Your task to perform on an android device: Toggle the flashlight Image 0: 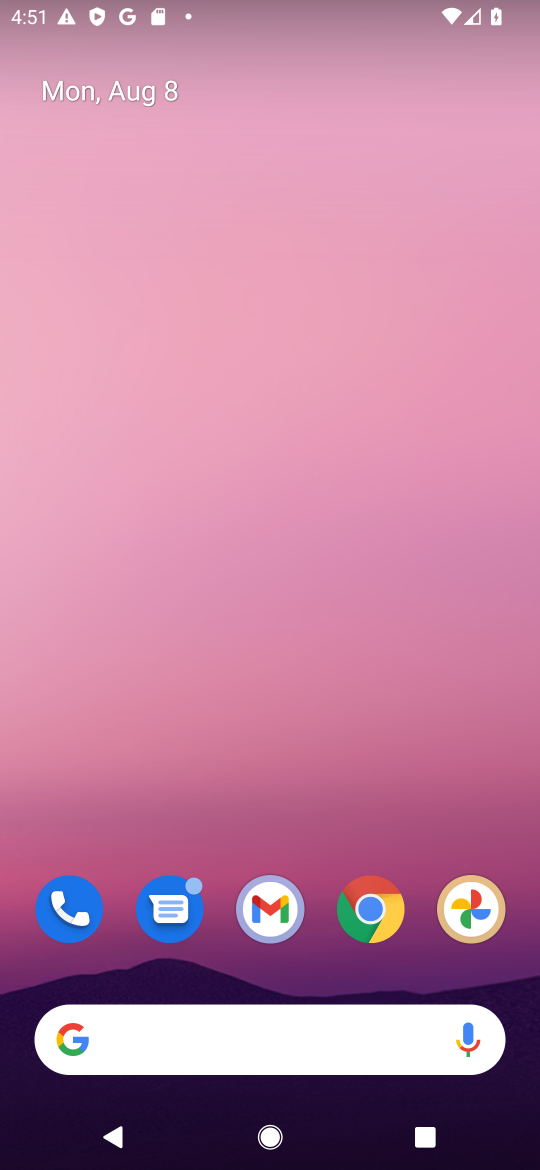
Step 0: press home button
Your task to perform on an android device: Toggle the flashlight Image 1: 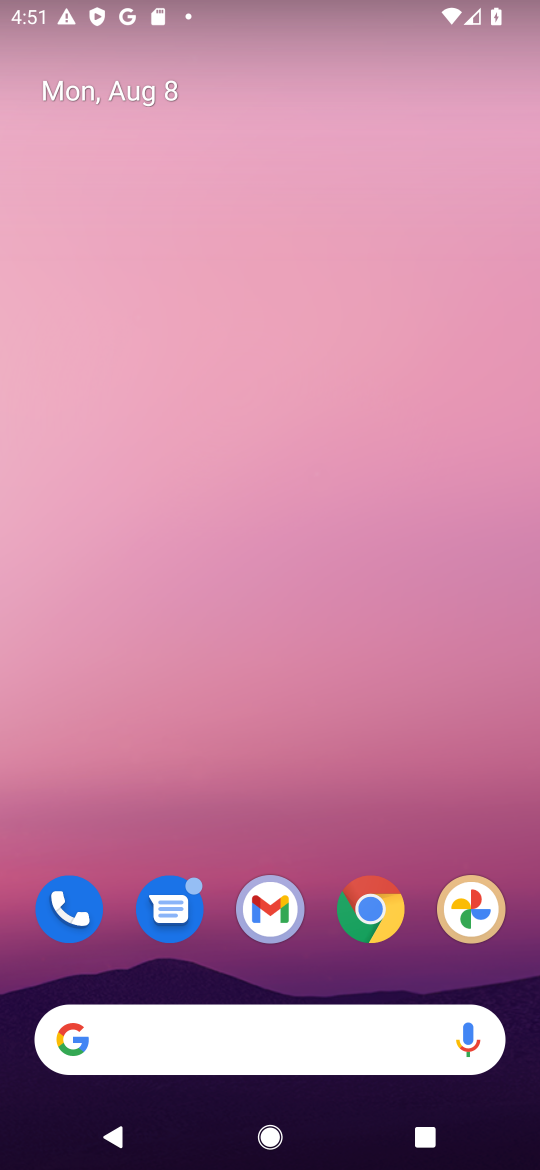
Step 1: drag from (289, 9) to (298, 573)
Your task to perform on an android device: Toggle the flashlight Image 2: 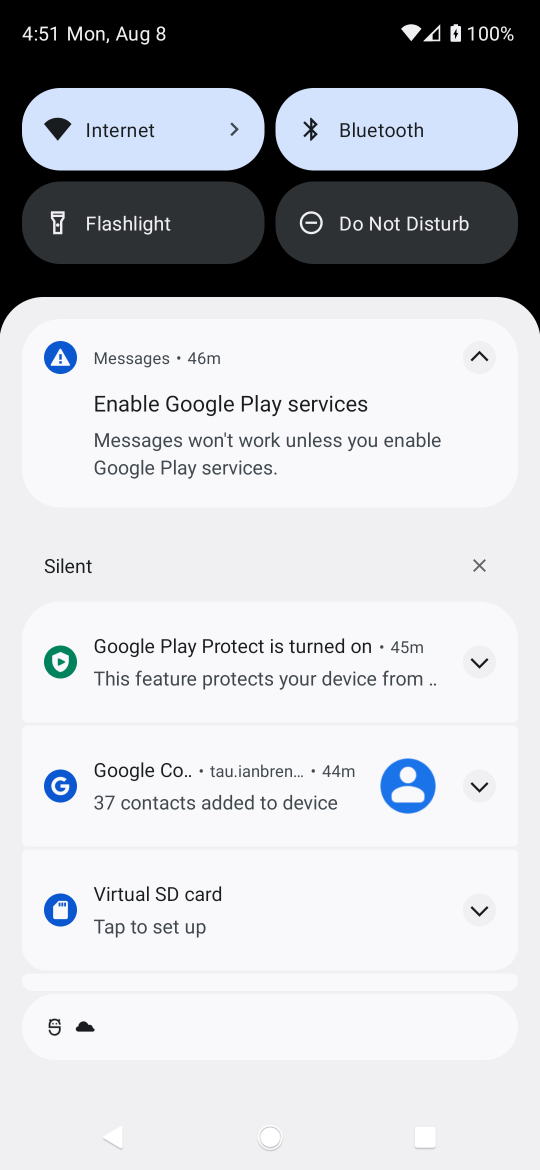
Step 2: click (147, 239)
Your task to perform on an android device: Toggle the flashlight Image 3: 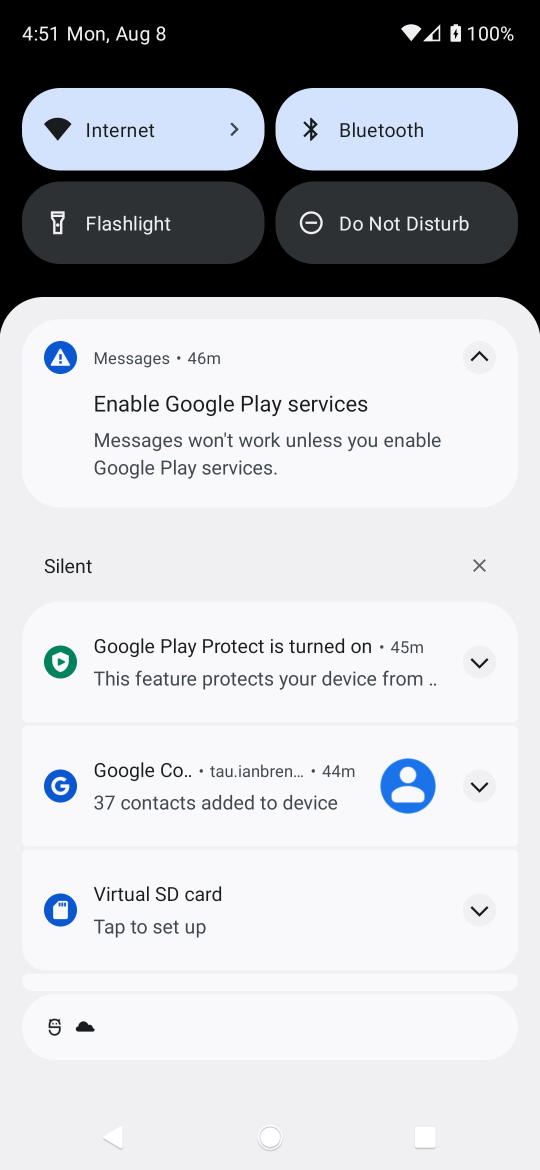
Step 3: task complete